Your task to perform on an android device: turn on data saver in the chrome app Image 0: 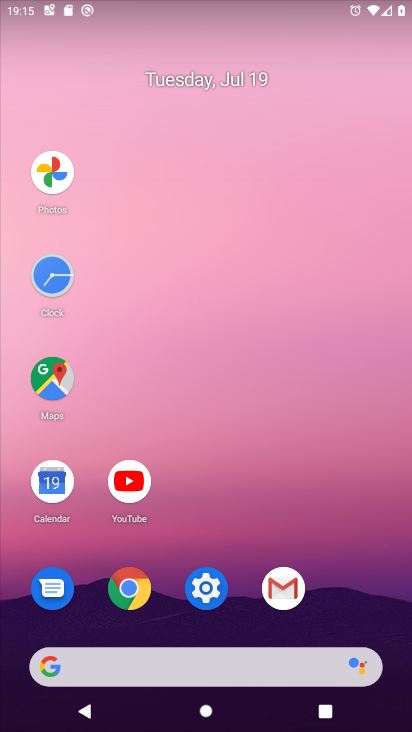
Step 0: click (126, 592)
Your task to perform on an android device: turn on data saver in the chrome app Image 1: 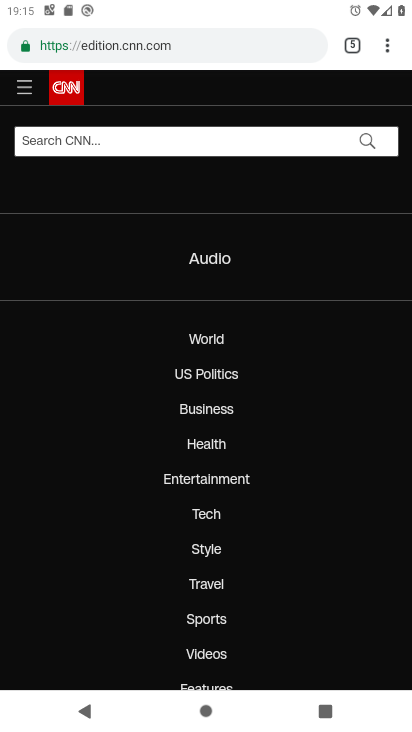
Step 1: click (397, 42)
Your task to perform on an android device: turn on data saver in the chrome app Image 2: 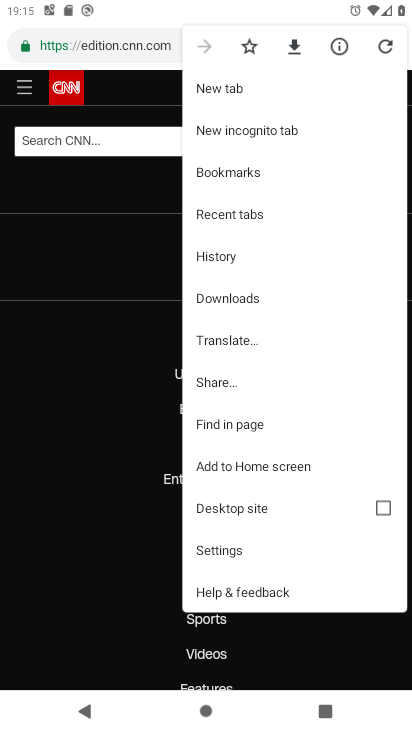
Step 2: click (225, 541)
Your task to perform on an android device: turn on data saver in the chrome app Image 3: 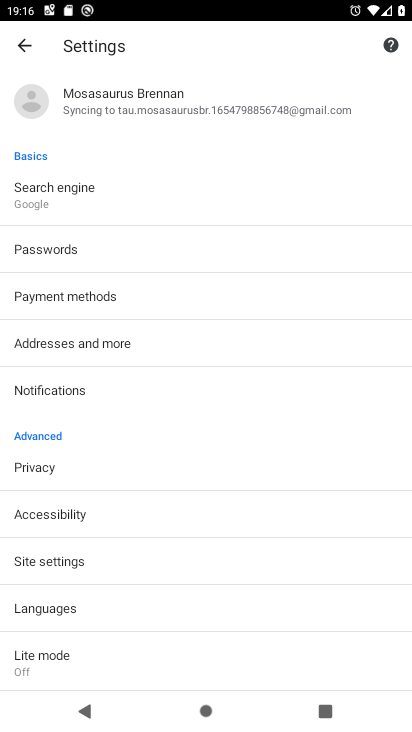
Step 3: click (55, 649)
Your task to perform on an android device: turn on data saver in the chrome app Image 4: 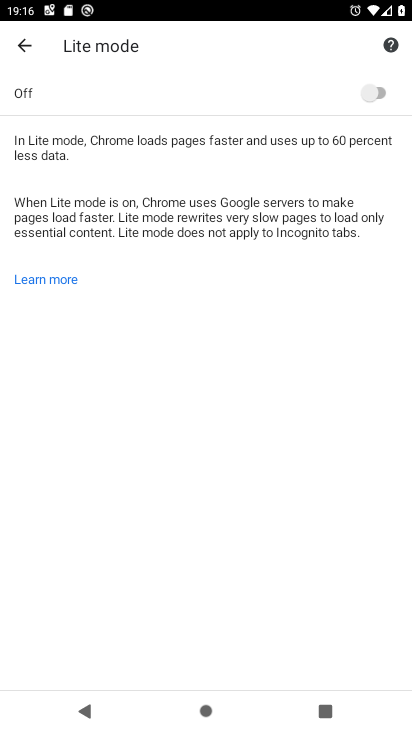
Step 4: click (368, 88)
Your task to perform on an android device: turn on data saver in the chrome app Image 5: 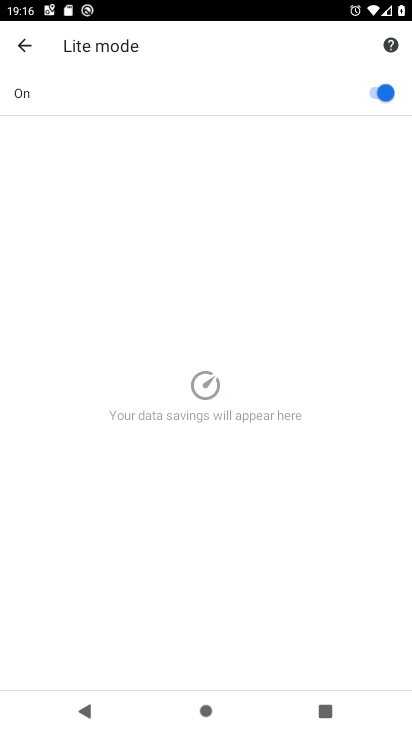
Step 5: task complete